Your task to perform on an android device: Go to Reddit.com Image 0: 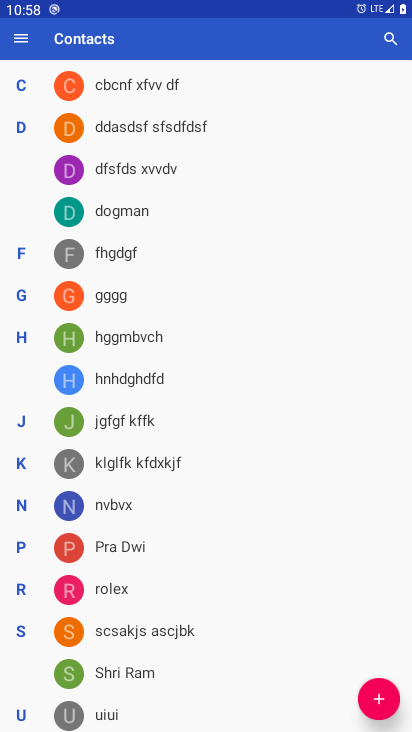
Step 0: press home button
Your task to perform on an android device: Go to Reddit.com Image 1: 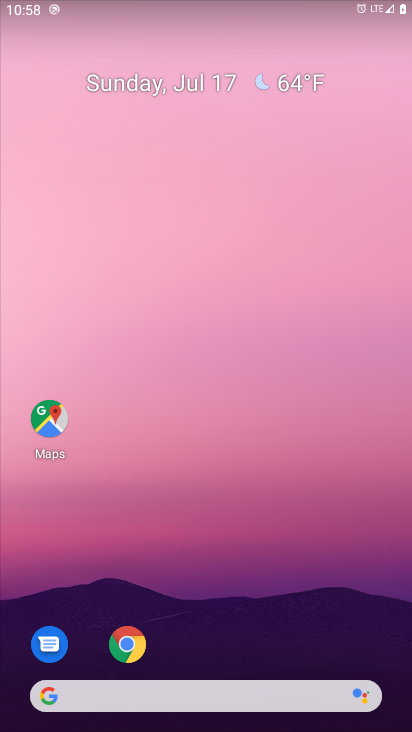
Step 1: click (95, 695)
Your task to perform on an android device: Go to Reddit.com Image 2: 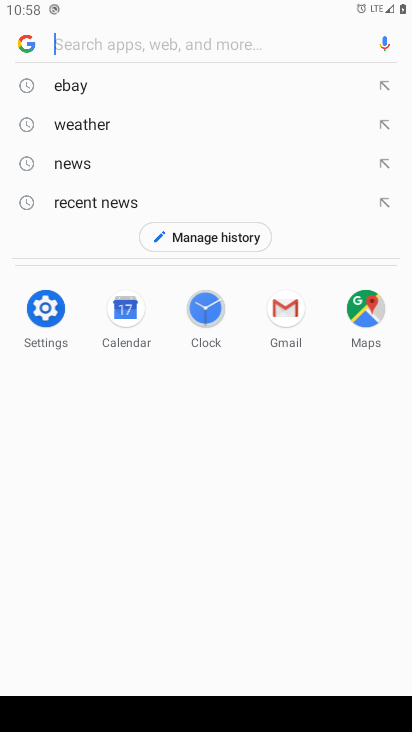
Step 2: type "Reddit.com"
Your task to perform on an android device: Go to Reddit.com Image 3: 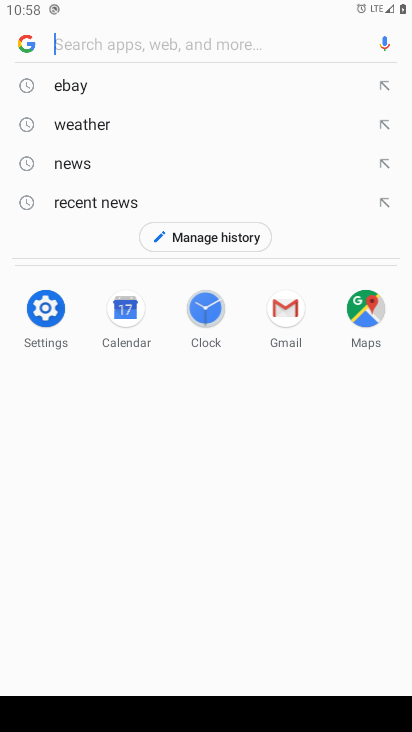
Step 3: click (83, 45)
Your task to perform on an android device: Go to Reddit.com Image 4: 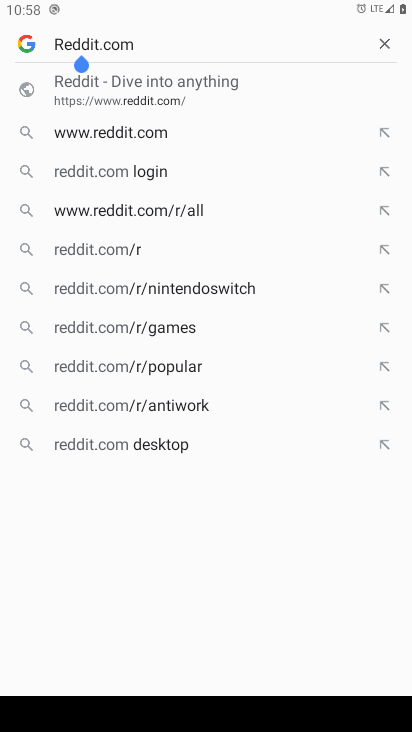
Step 4: press enter
Your task to perform on an android device: Go to Reddit.com Image 5: 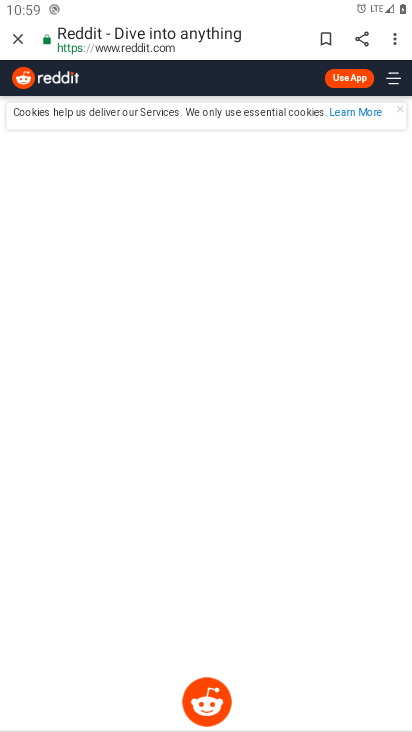
Step 5: task complete